Your task to perform on an android device: Turn on the flashlight Image 0: 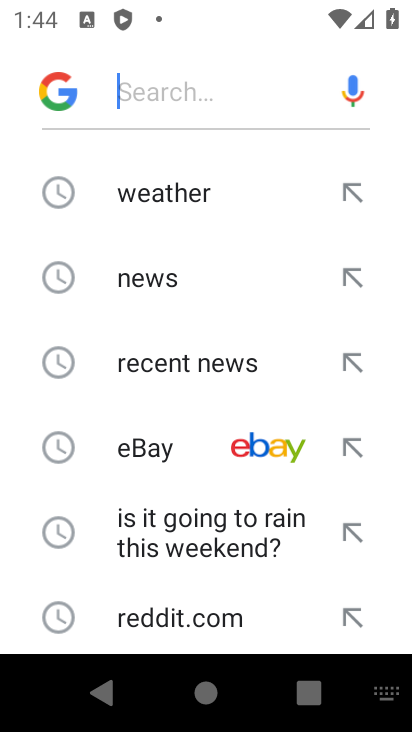
Step 0: press home button
Your task to perform on an android device: Turn on the flashlight Image 1: 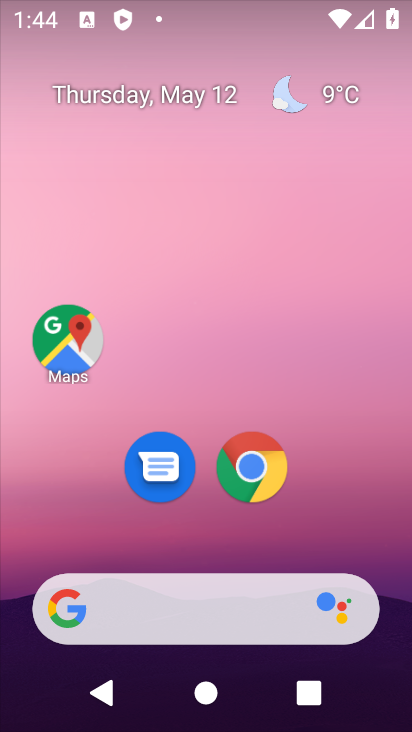
Step 1: drag from (289, 521) to (288, 185)
Your task to perform on an android device: Turn on the flashlight Image 2: 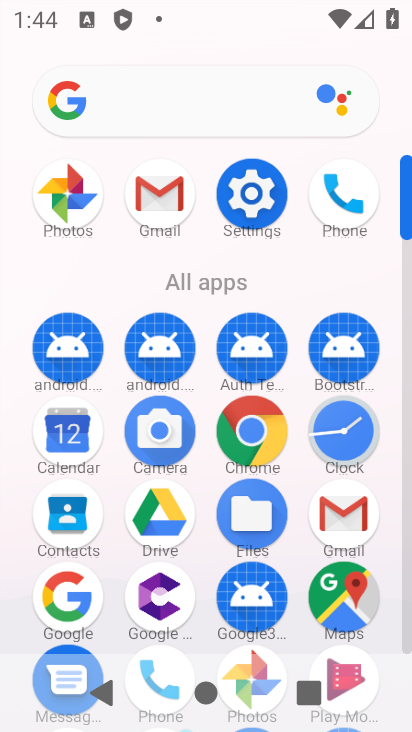
Step 2: click (240, 191)
Your task to perform on an android device: Turn on the flashlight Image 3: 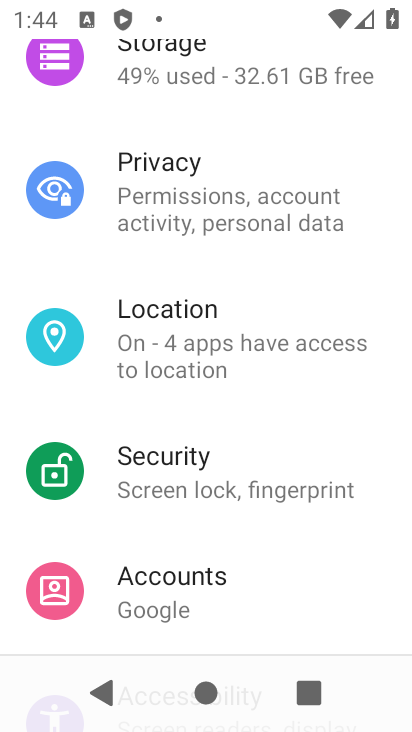
Step 3: task complete